Your task to perform on an android device: turn notification dots off Image 0: 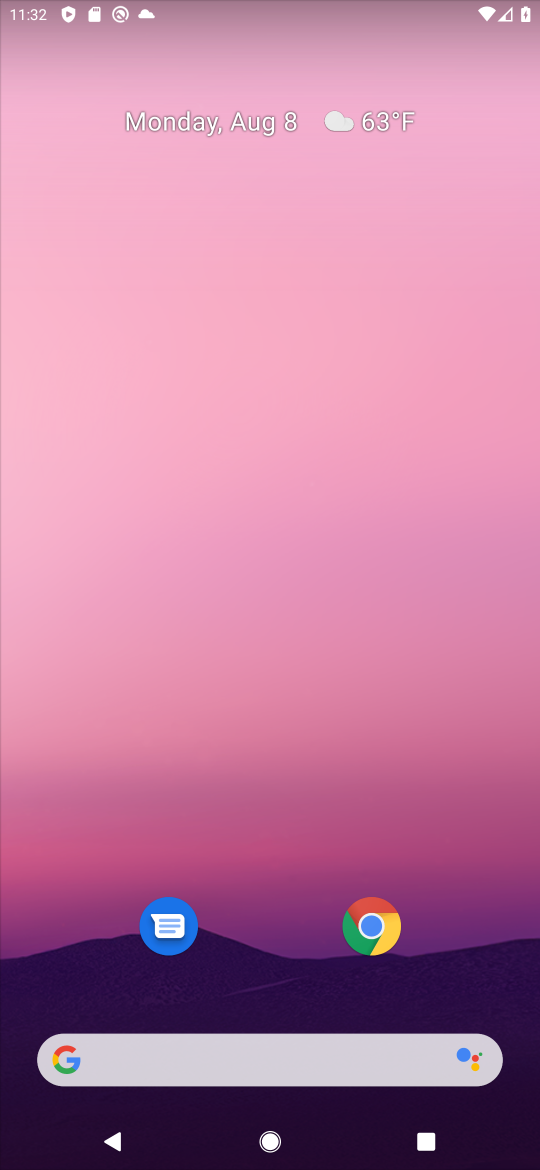
Step 0: drag from (246, 740) to (483, 131)
Your task to perform on an android device: turn notification dots off Image 1: 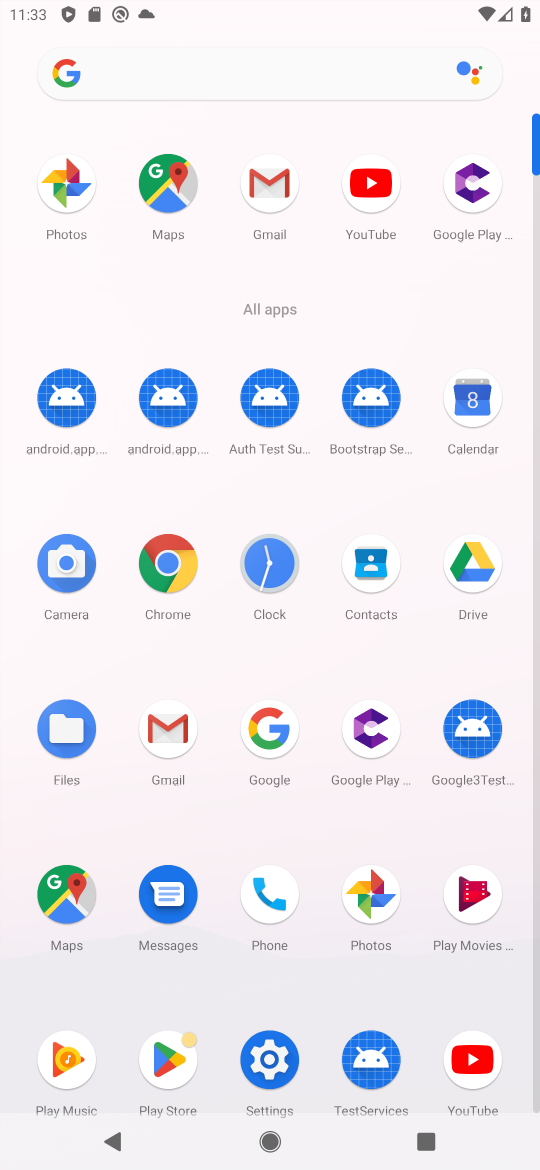
Step 1: click (269, 1063)
Your task to perform on an android device: turn notification dots off Image 2: 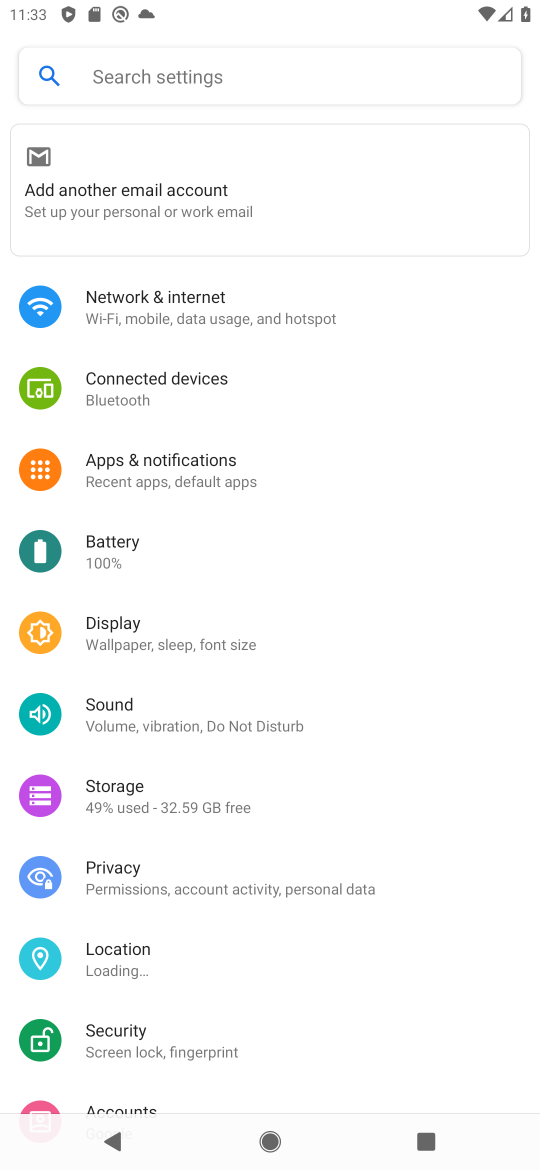
Step 2: click (215, 468)
Your task to perform on an android device: turn notification dots off Image 3: 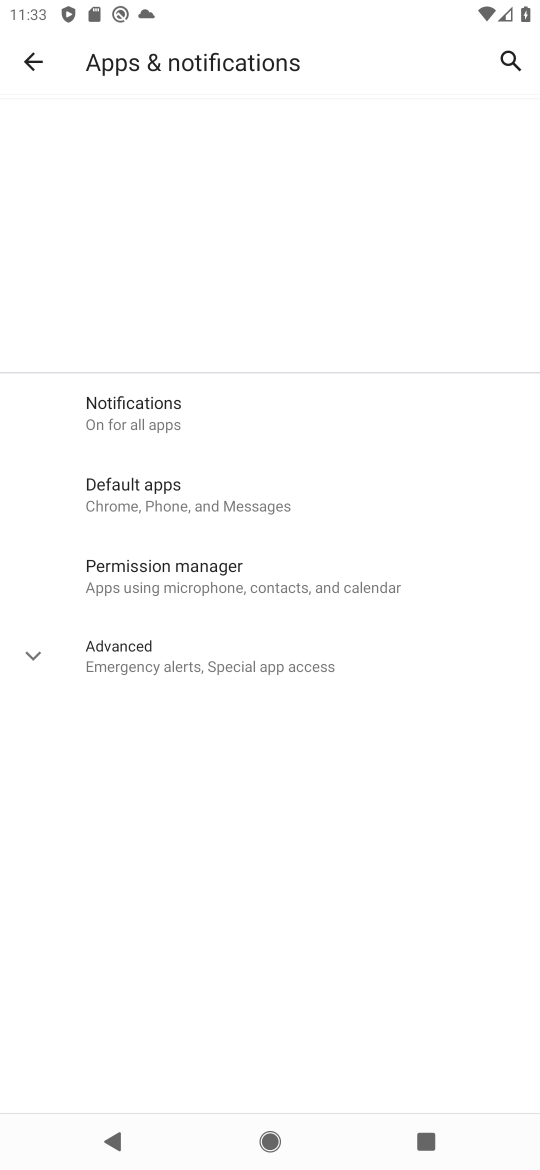
Step 3: click (143, 414)
Your task to perform on an android device: turn notification dots off Image 4: 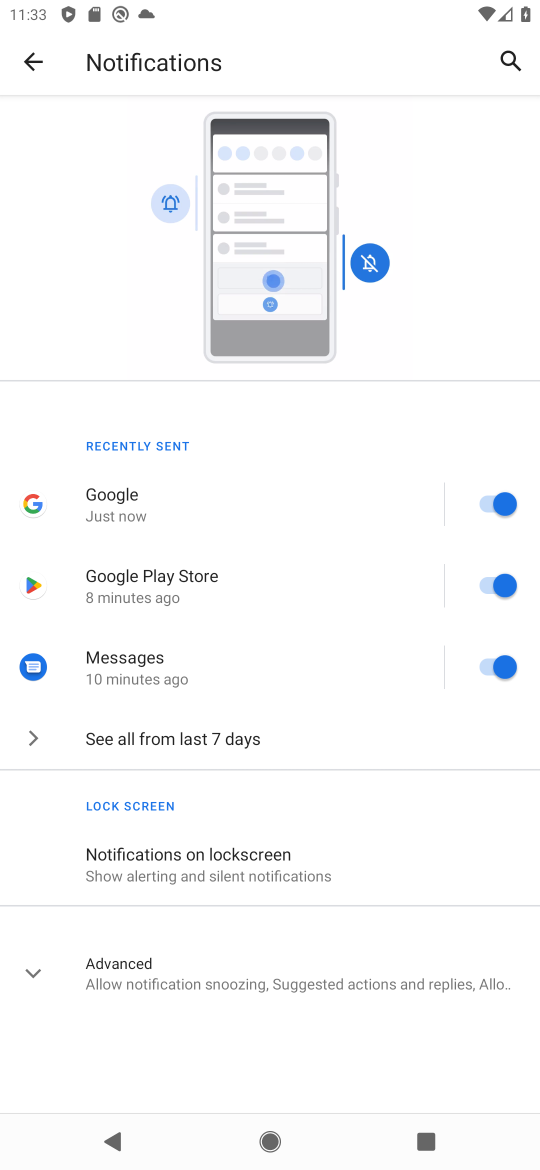
Step 4: click (108, 970)
Your task to perform on an android device: turn notification dots off Image 5: 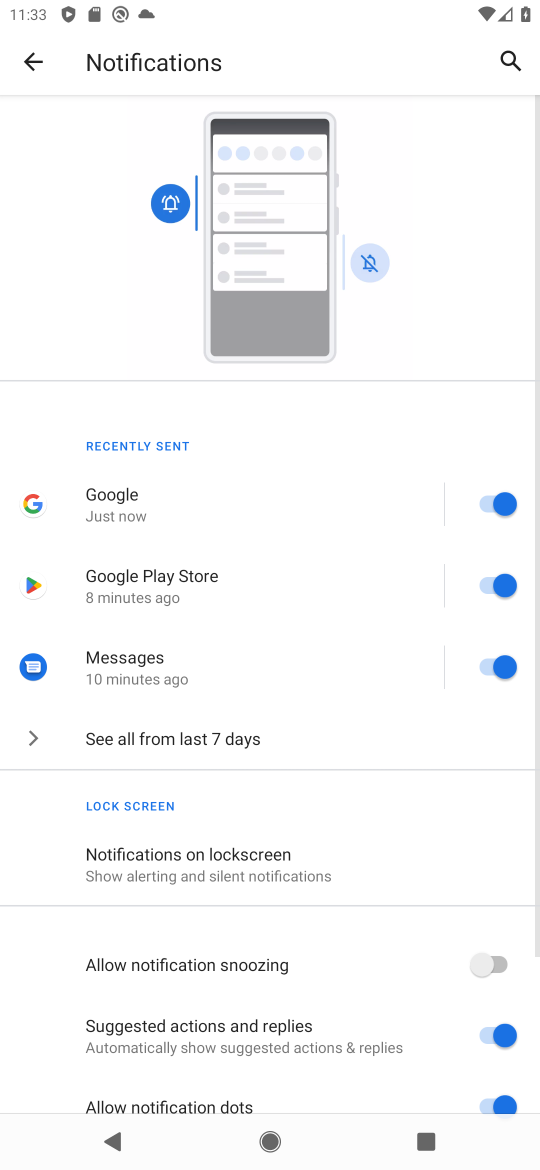
Step 5: drag from (13, 662) to (216, 362)
Your task to perform on an android device: turn notification dots off Image 6: 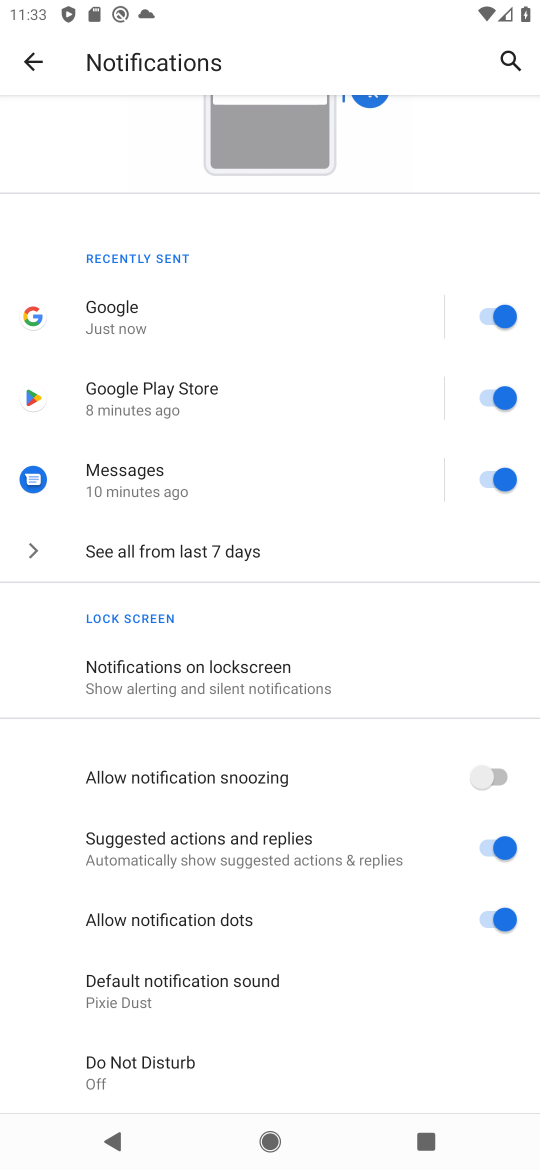
Step 6: click (505, 900)
Your task to perform on an android device: turn notification dots off Image 7: 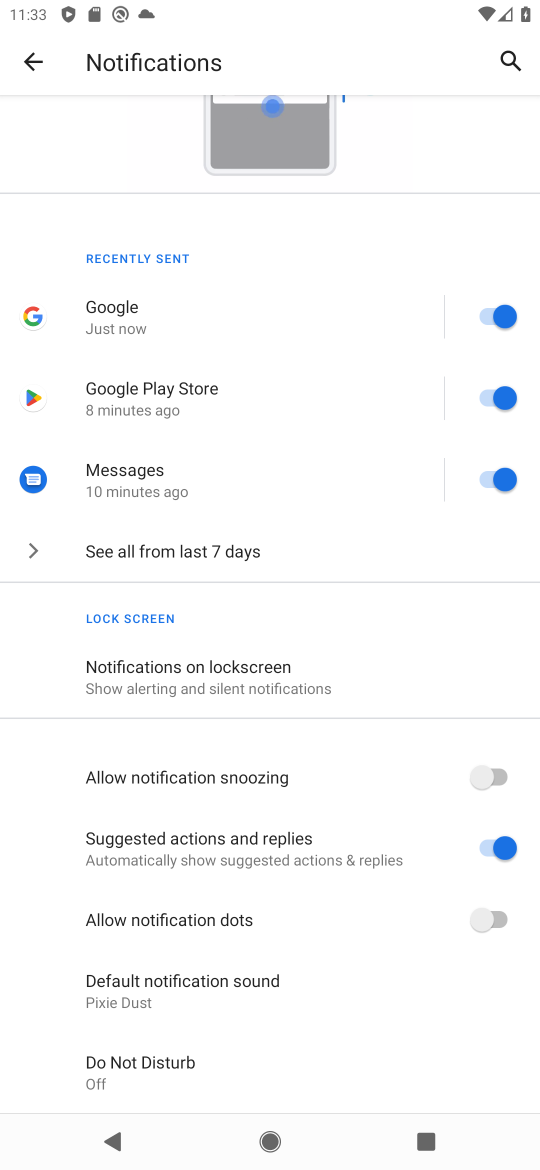
Step 7: task complete